Your task to perform on an android device: turn off airplane mode Image 0: 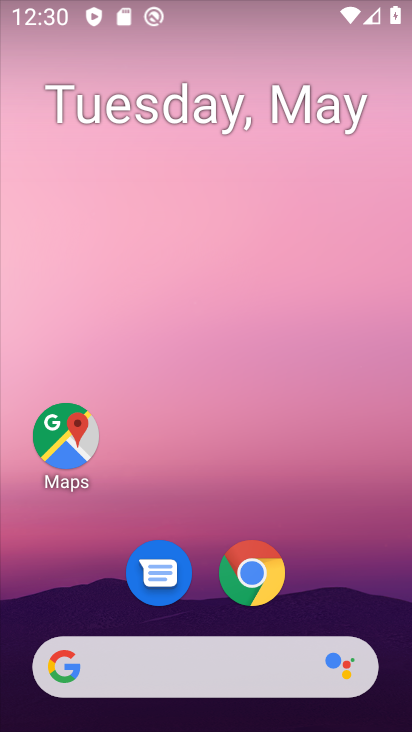
Step 0: drag from (360, 505) to (284, 4)
Your task to perform on an android device: turn off airplane mode Image 1: 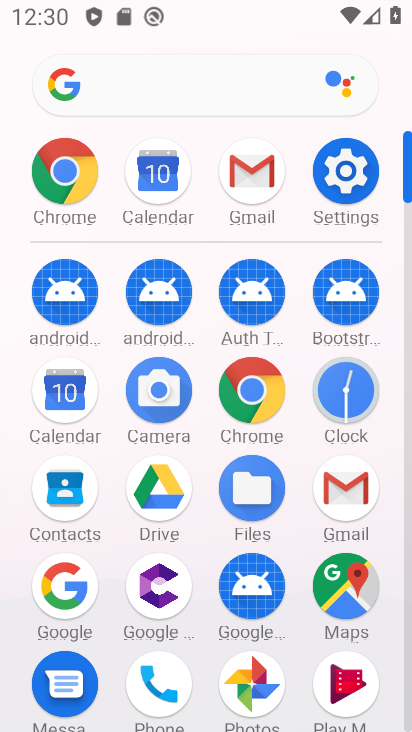
Step 1: click (357, 182)
Your task to perform on an android device: turn off airplane mode Image 2: 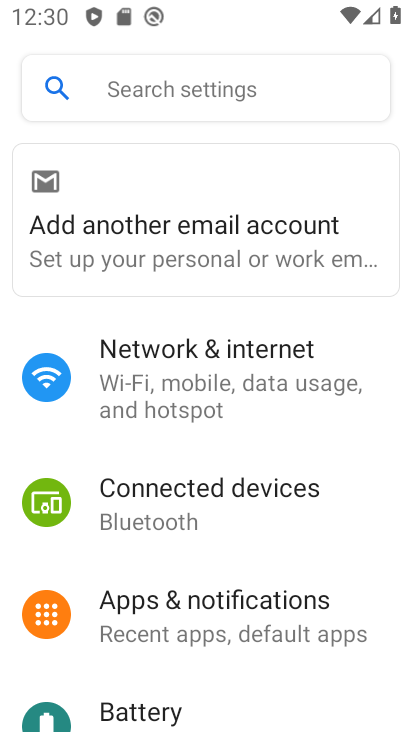
Step 2: click (146, 387)
Your task to perform on an android device: turn off airplane mode Image 3: 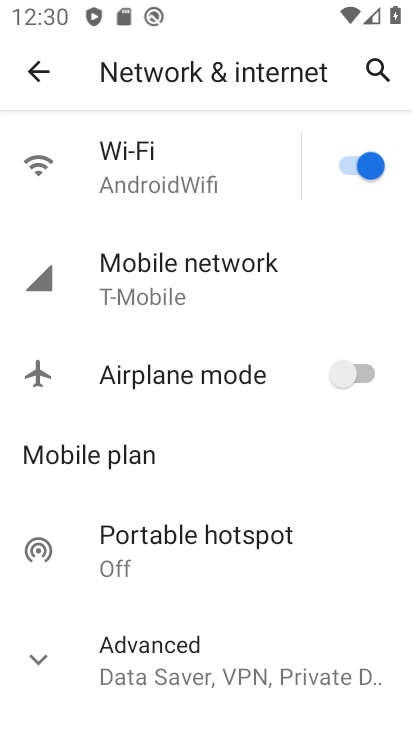
Step 3: task complete